Your task to perform on an android device: Open maps Image 0: 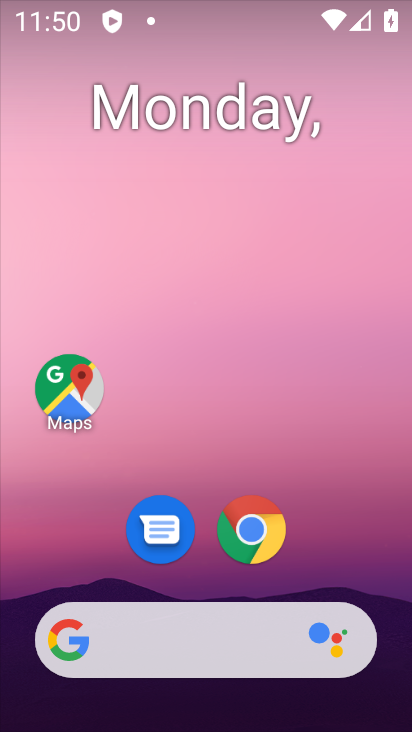
Step 0: click (102, 365)
Your task to perform on an android device: Open maps Image 1: 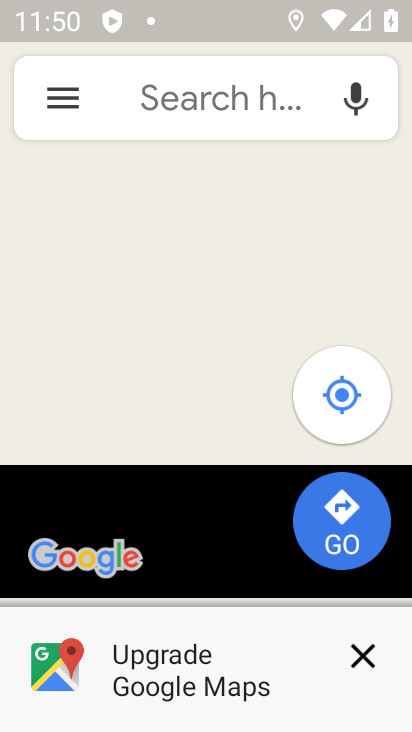
Step 1: task complete